Your task to perform on an android device: set the timer Image 0: 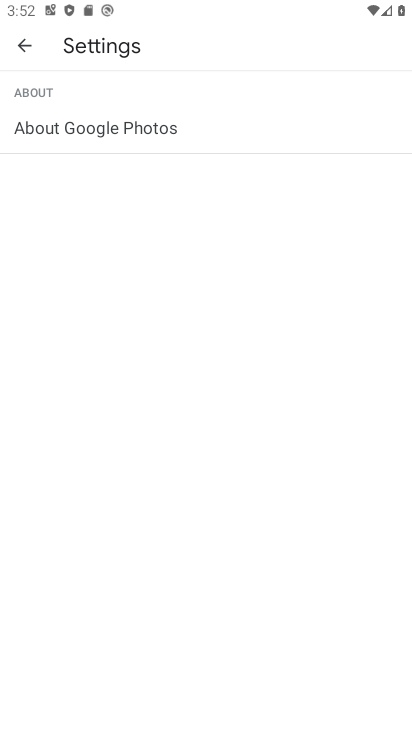
Step 0: press home button
Your task to perform on an android device: set the timer Image 1: 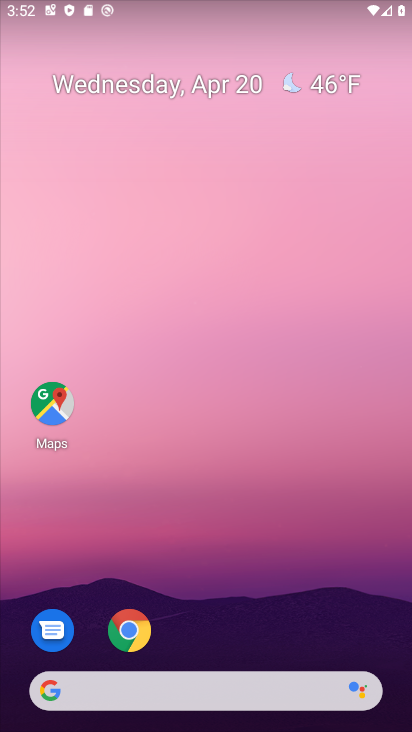
Step 1: drag from (166, 647) to (168, 221)
Your task to perform on an android device: set the timer Image 2: 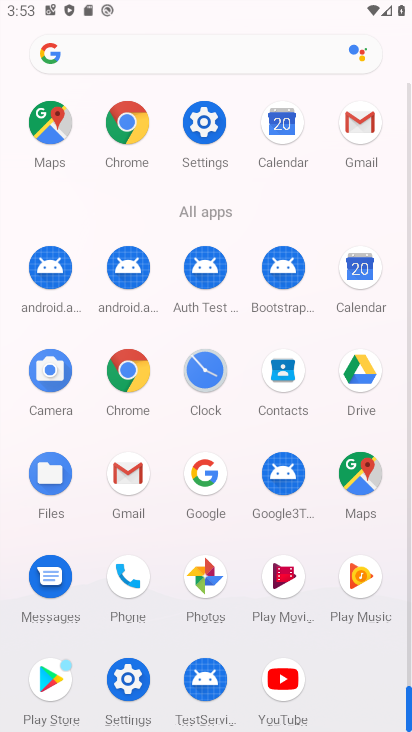
Step 2: click (210, 378)
Your task to perform on an android device: set the timer Image 3: 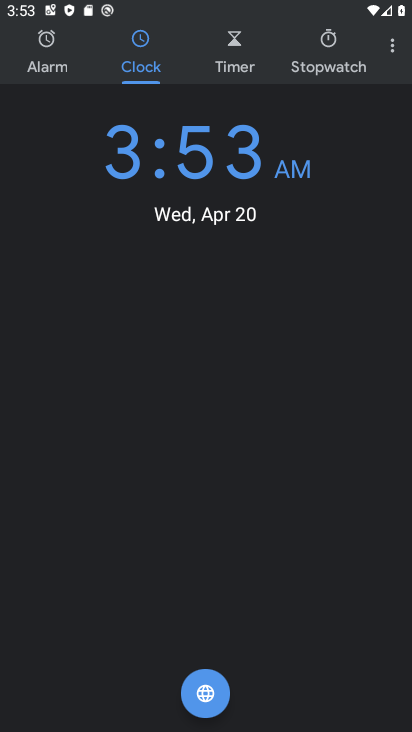
Step 3: click (247, 59)
Your task to perform on an android device: set the timer Image 4: 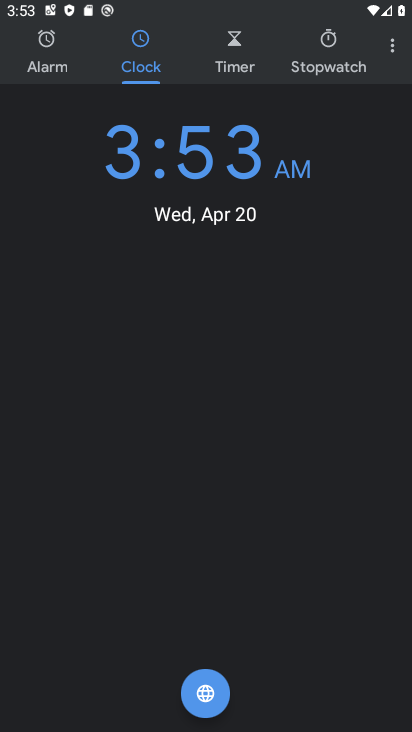
Step 4: click (228, 65)
Your task to perform on an android device: set the timer Image 5: 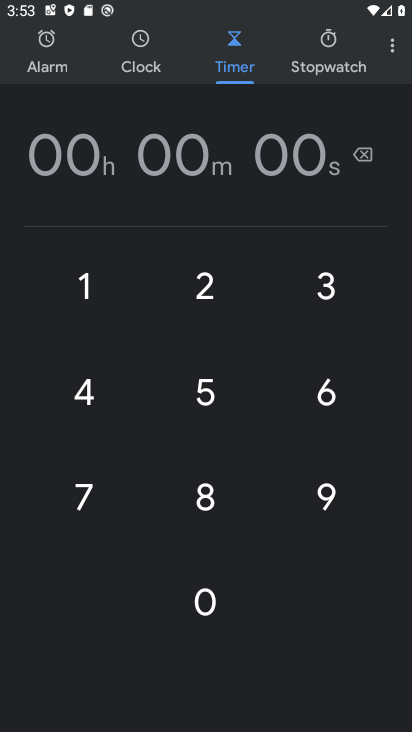
Step 5: click (205, 599)
Your task to perform on an android device: set the timer Image 6: 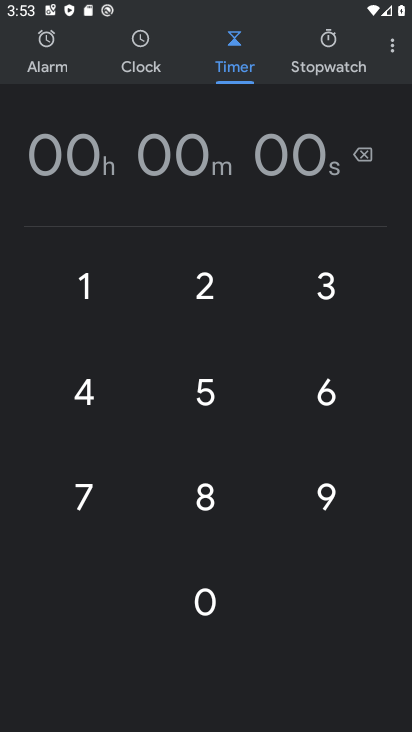
Step 6: click (204, 288)
Your task to perform on an android device: set the timer Image 7: 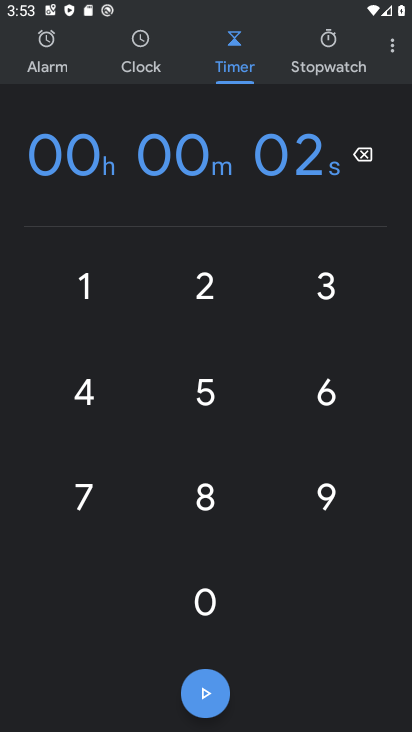
Step 7: click (218, 601)
Your task to perform on an android device: set the timer Image 8: 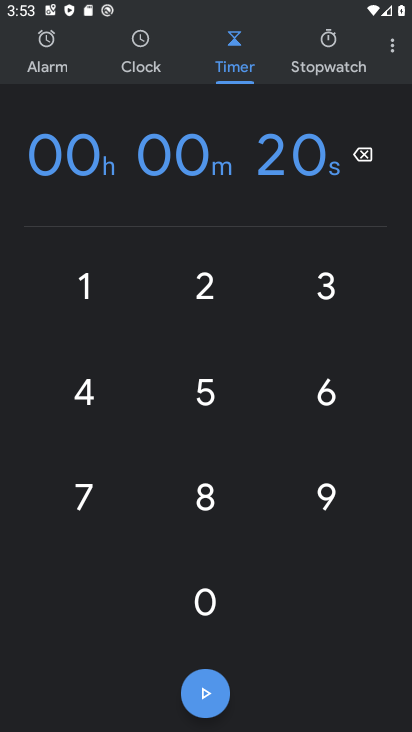
Step 8: click (330, 289)
Your task to perform on an android device: set the timer Image 9: 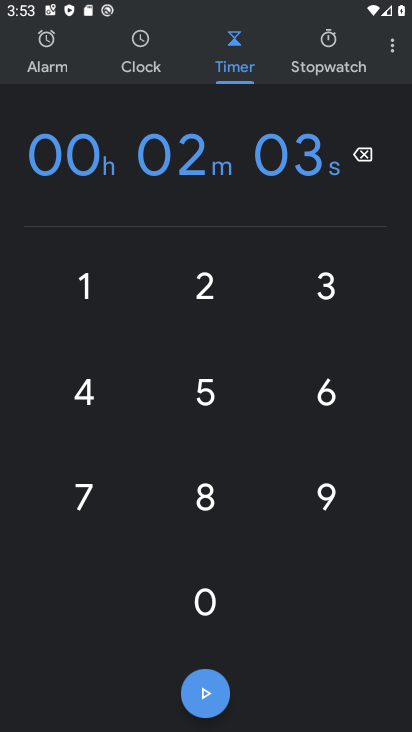
Step 9: click (208, 694)
Your task to perform on an android device: set the timer Image 10: 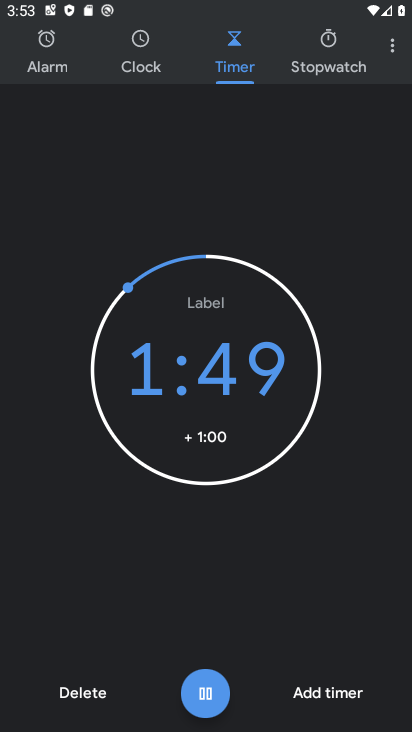
Step 10: task complete